Your task to perform on an android device: Go to Android settings Image 0: 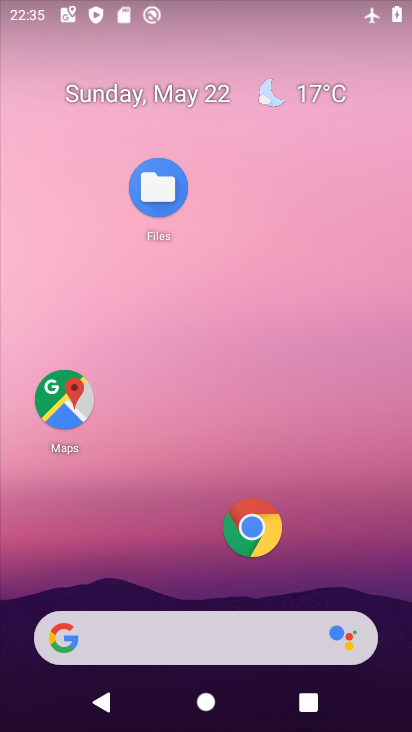
Step 0: drag from (166, 555) to (32, 0)
Your task to perform on an android device: Go to Android settings Image 1: 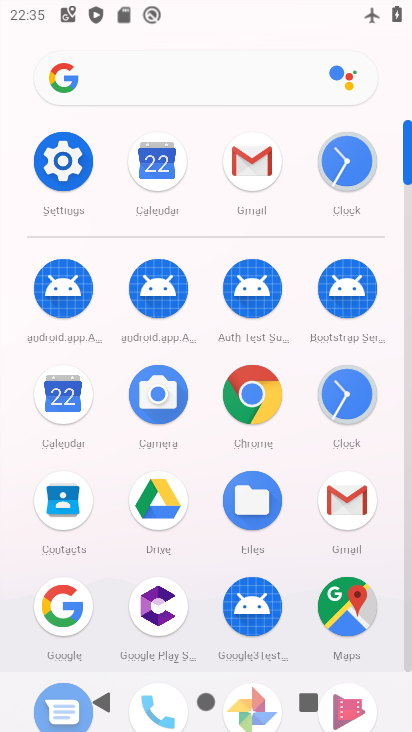
Step 1: click (53, 157)
Your task to perform on an android device: Go to Android settings Image 2: 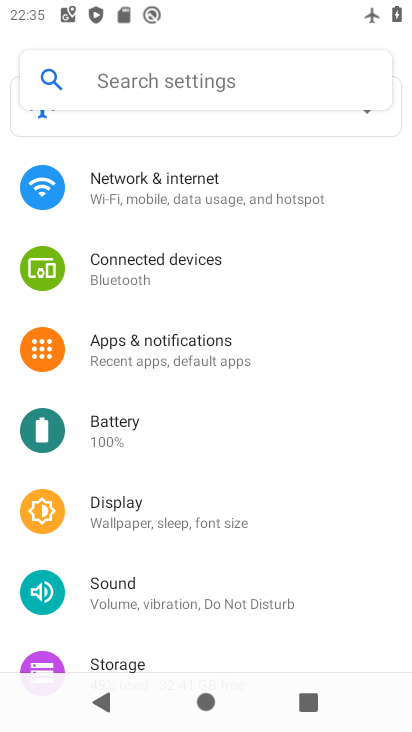
Step 2: task complete